Your task to perform on an android device: turn off smart reply in the gmail app Image 0: 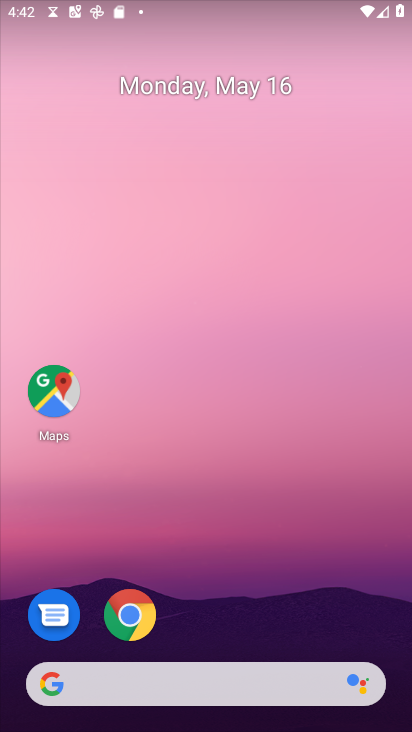
Step 0: drag from (221, 548) to (247, 147)
Your task to perform on an android device: turn off smart reply in the gmail app Image 1: 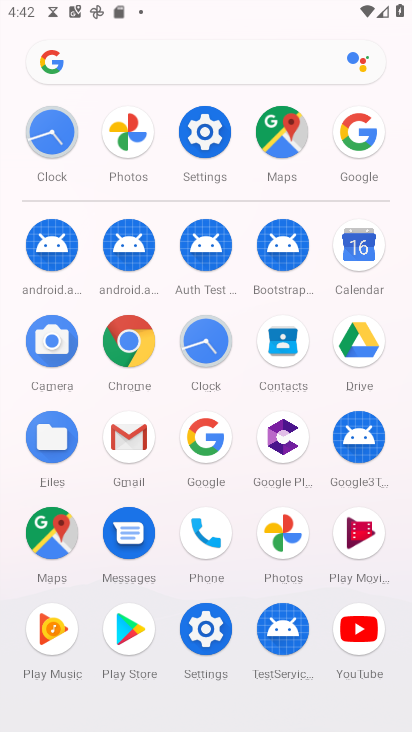
Step 1: click (122, 448)
Your task to perform on an android device: turn off smart reply in the gmail app Image 2: 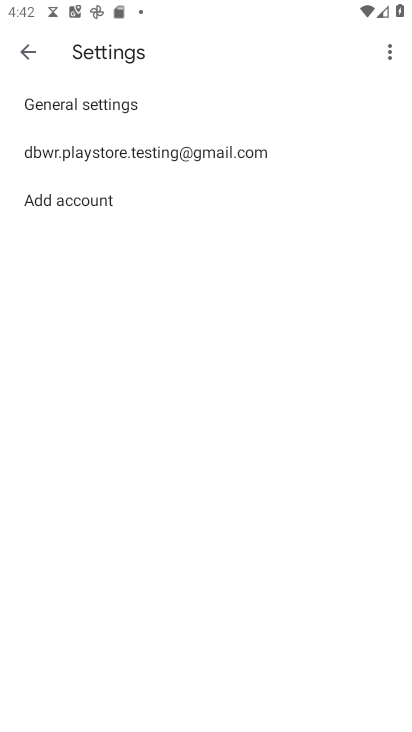
Step 2: click (37, 55)
Your task to perform on an android device: turn off smart reply in the gmail app Image 3: 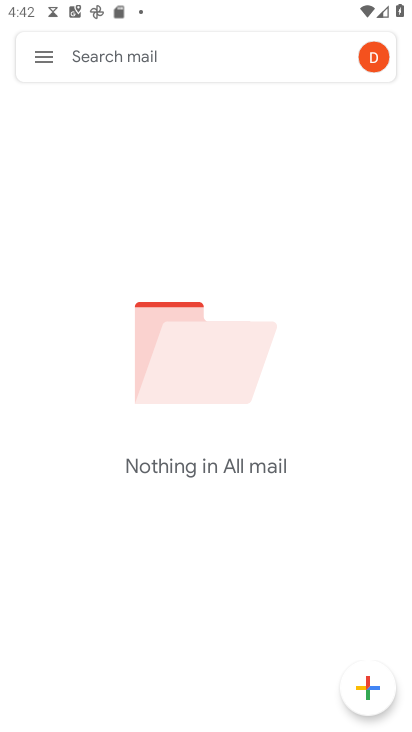
Step 3: click (42, 62)
Your task to perform on an android device: turn off smart reply in the gmail app Image 4: 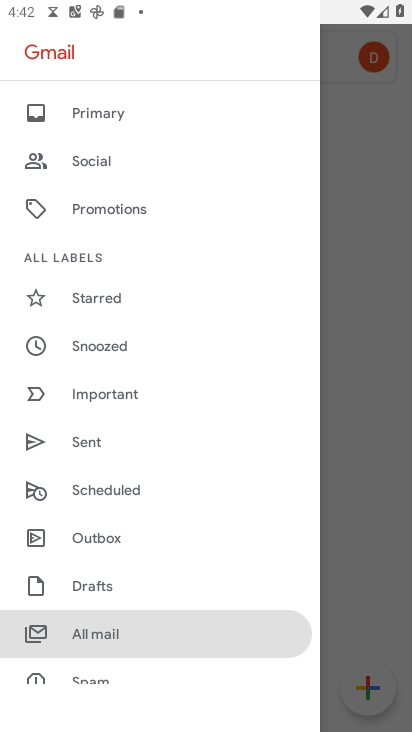
Step 4: drag from (175, 309) to (180, 247)
Your task to perform on an android device: turn off smart reply in the gmail app Image 5: 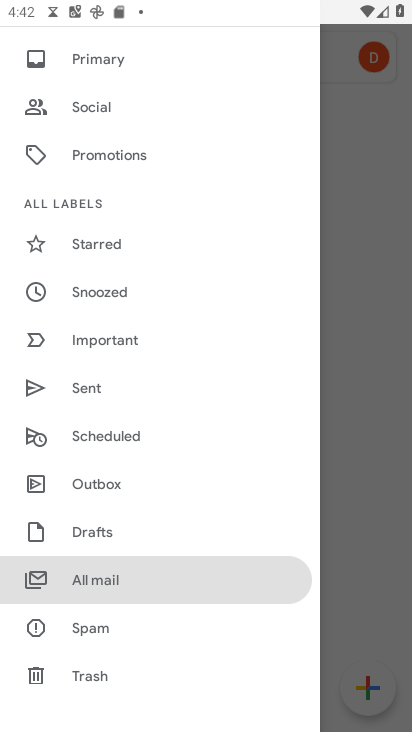
Step 5: drag from (130, 643) to (191, 273)
Your task to perform on an android device: turn off smart reply in the gmail app Image 6: 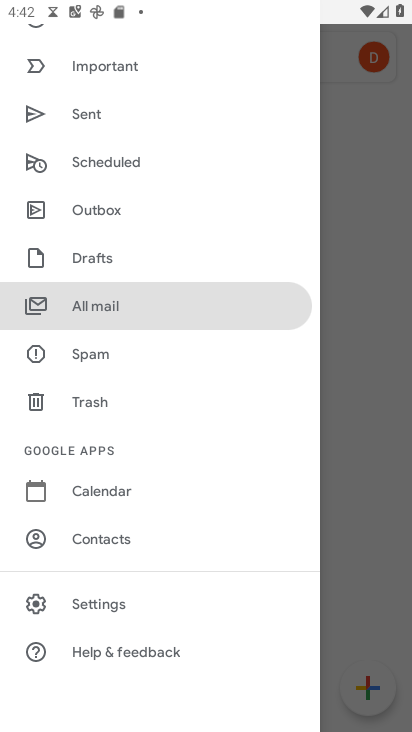
Step 6: click (91, 611)
Your task to perform on an android device: turn off smart reply in the gmail app Image 7: 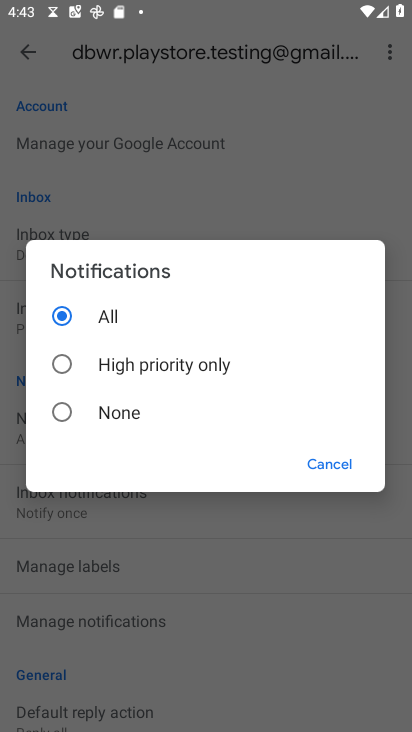
Step 7: click (325, 464)
Your task to perform on an android device: turn off smart reply in the gmail app Image 8: 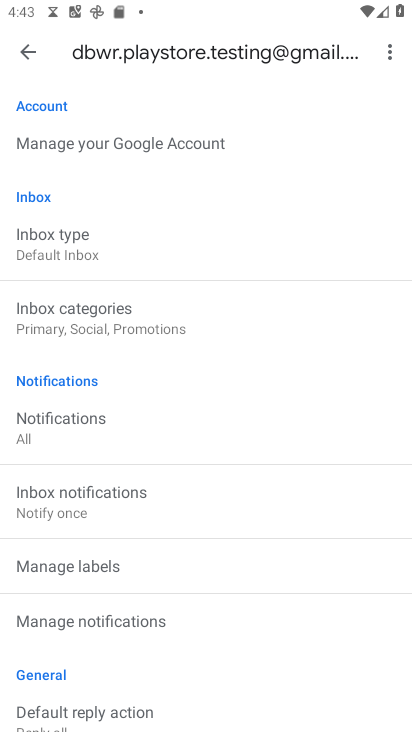
Step 8: task complete